Your task to perform on an android device: Search for amazon basics triple a on ebay.com, select the first entry, add it to the cart, then select checkout. Image 0: 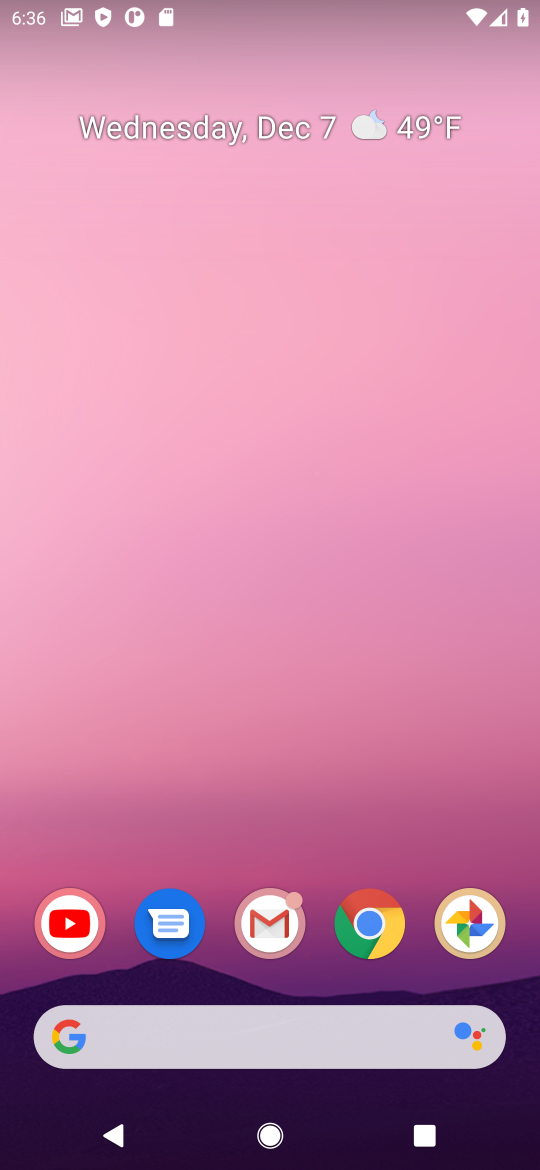
Step 0: drag from (253, 825) to (232, 238)
Your task to perform on an android device: Search for amazon basics triple a on ebay.com, select the first entry, add it to the cart, then select checkout. Image 1: 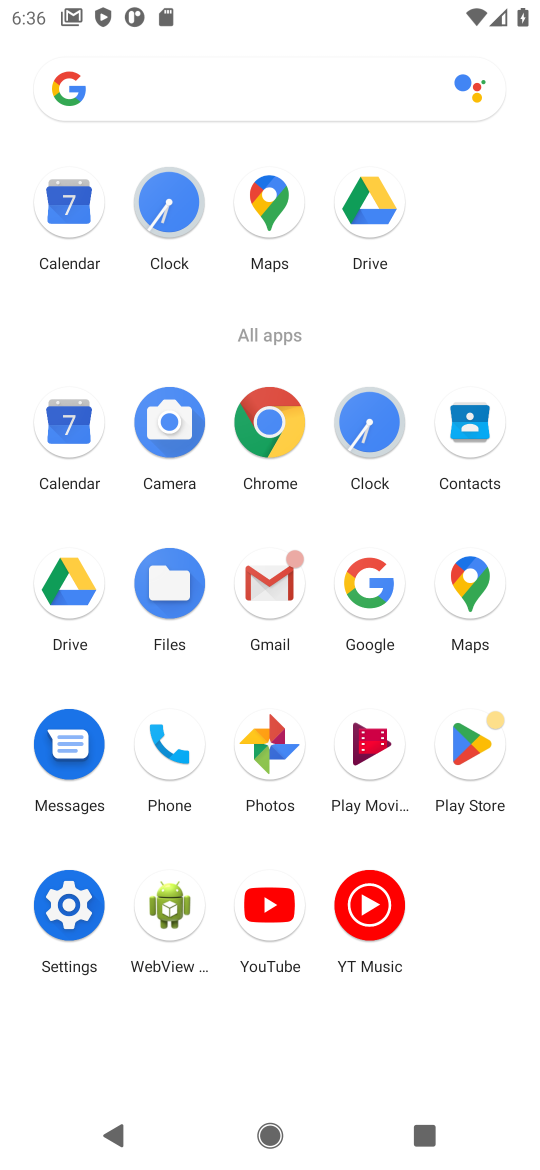
Step 1: click (363, 589)
Your task to perform on an android device: Search for amazon basics triple a on ebay.com, select the first entry, add it to the cart, then select checkout. Image 2: 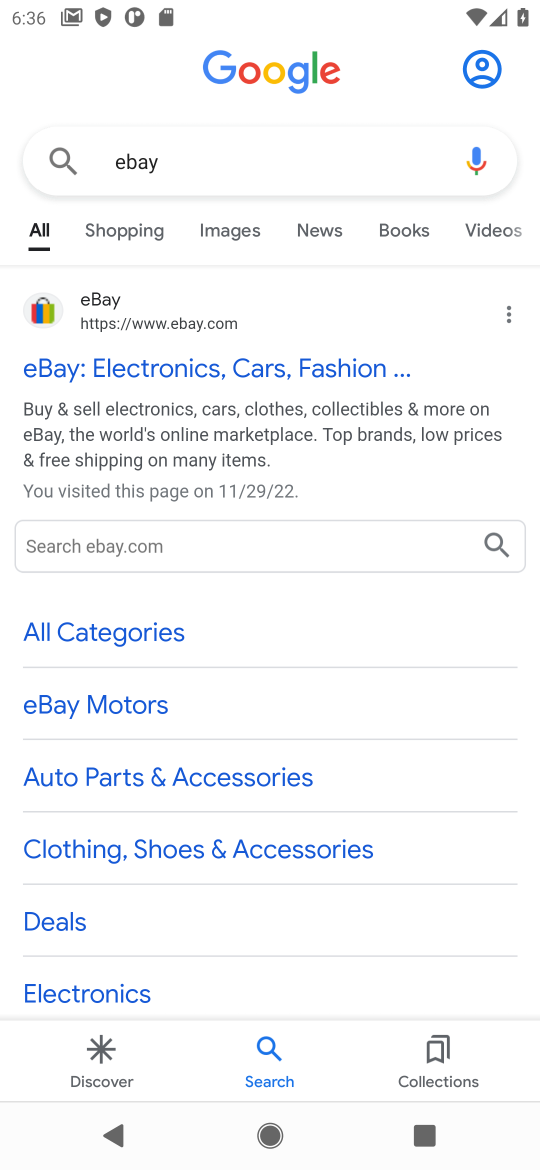
Step 2: click (137, 176)
Your task to perform on an android device: Search for amazon basics triple a on ebay.com, select the first entry, add it to the cart, then select checkout. Image 3: 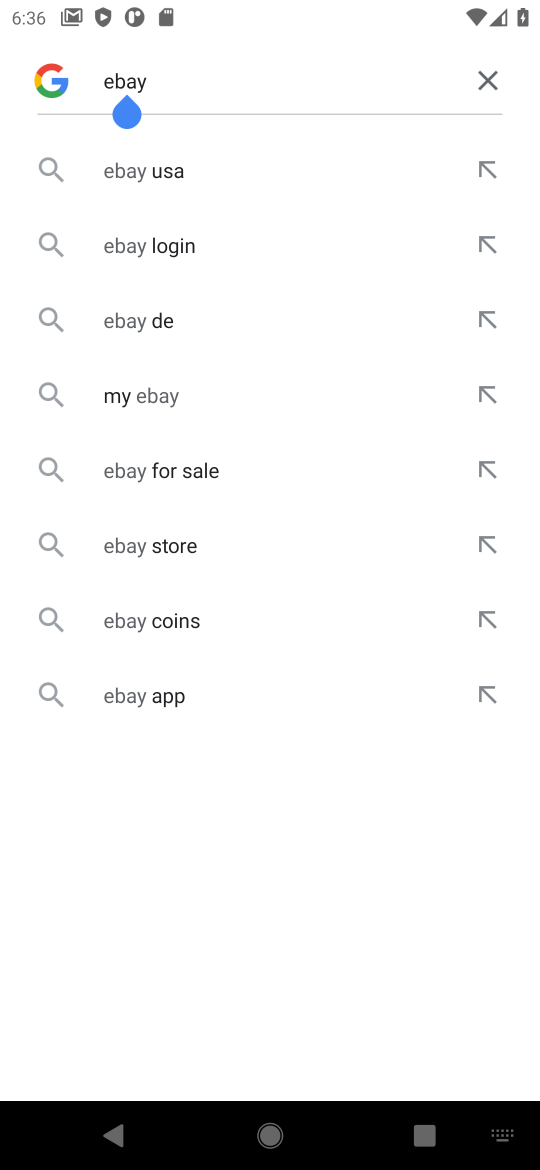
Step 3: click (478, 86)
Your task to perform on an android device: Search for amazon basics triple a on ebay.com, select the first entry, add it to the cart, then select checkout. Image 4: 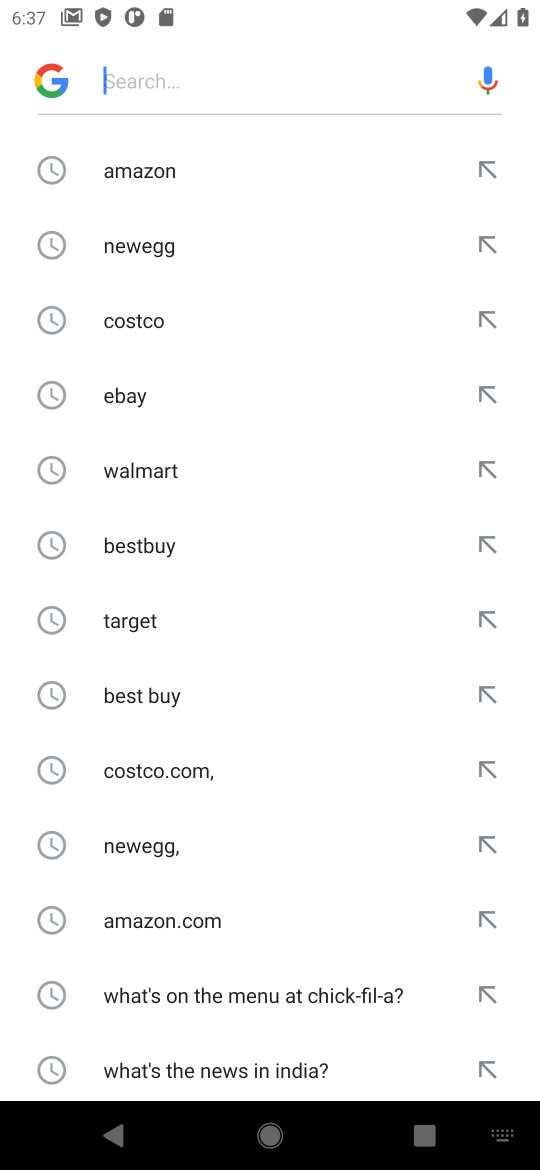
Step 4: click (136, 403)
Your task to perform on an android device: Search for amazon basics triple a on ebay.com, select the first entry, add it to the cart, then select checkout. Image 5: 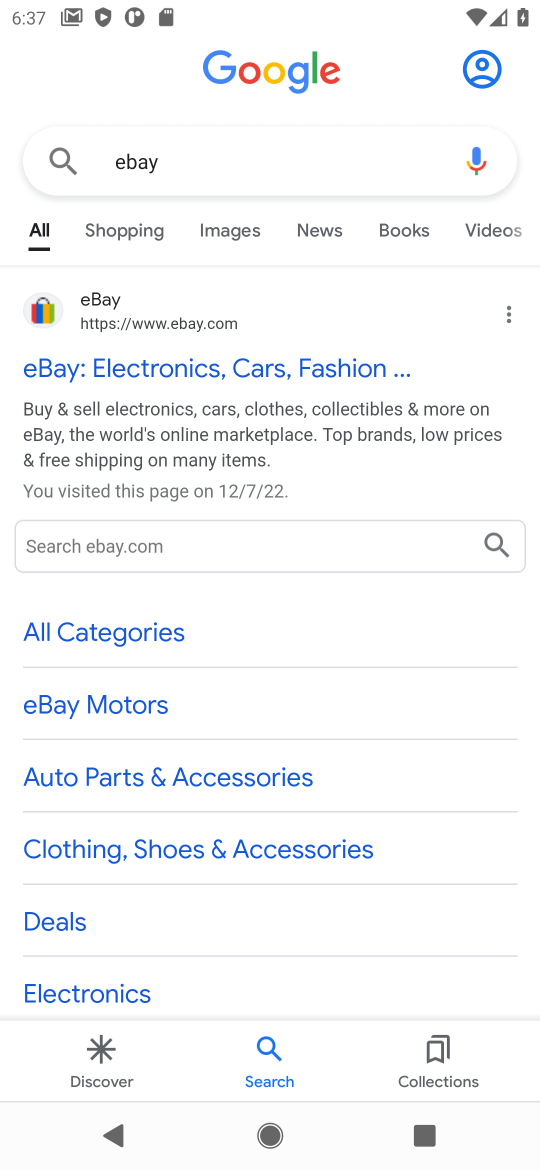
Step 5: click (143, 385)
Your task to perform on an android device: Search for amazon basics triple a on ebay.com, select the first entry, add it to the cart, then select checkout. Image 6: 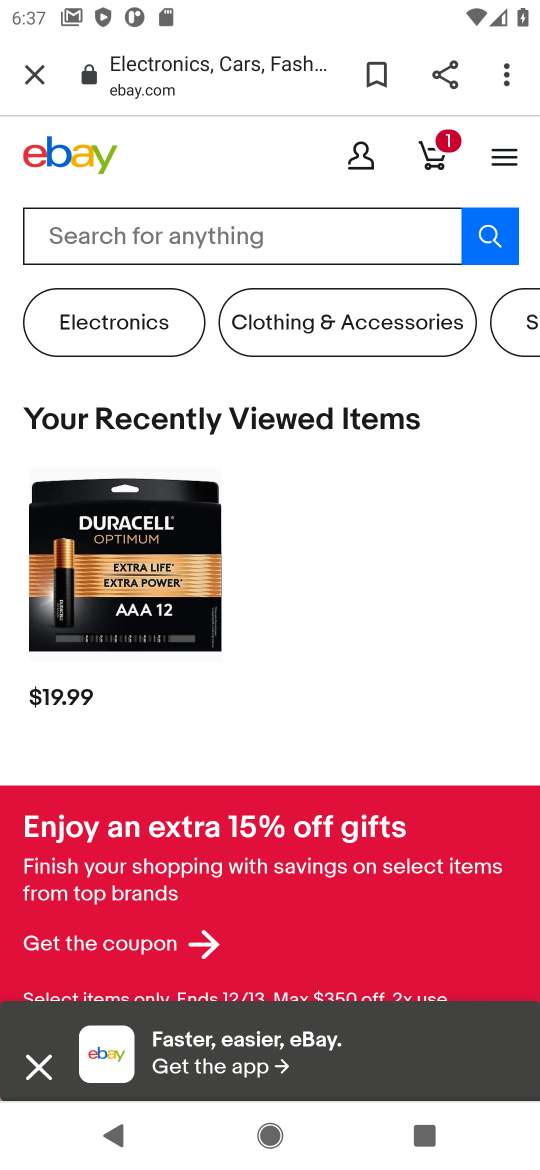
Step 6: click (171, 243)
Your task to perform on an android device: Search for amazon basics triple a on ebay.com, select the first entry, add it to the cart, then select checkout. Image 7: 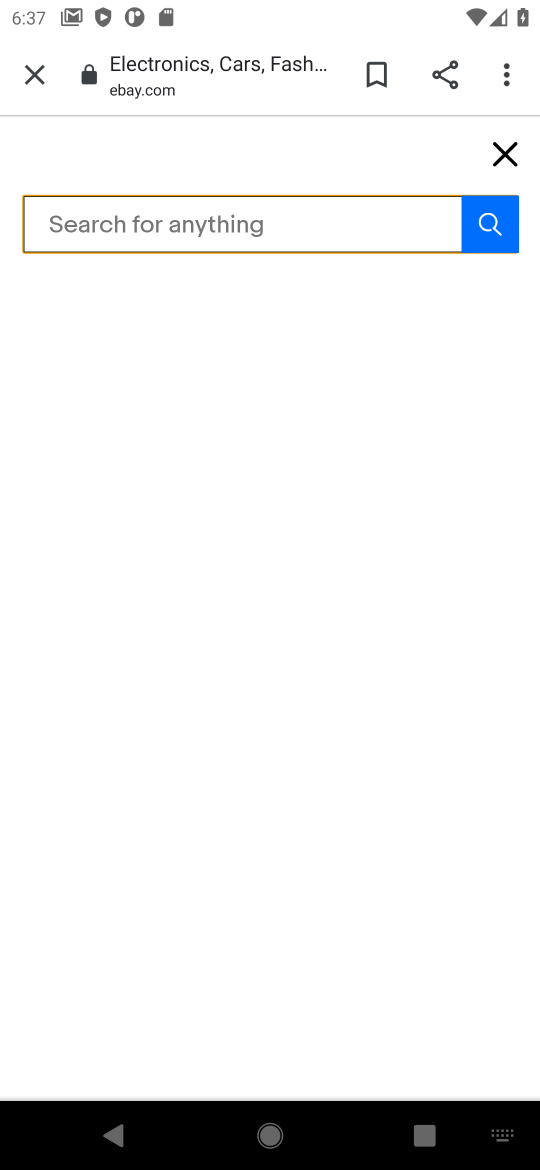
Step 7: type "amazon basics triple a "
Your task to perform on an android device: Search for amazon basics triple a on ebay.com, select the first entry, add it to the cart, then select checkout. Image 8: 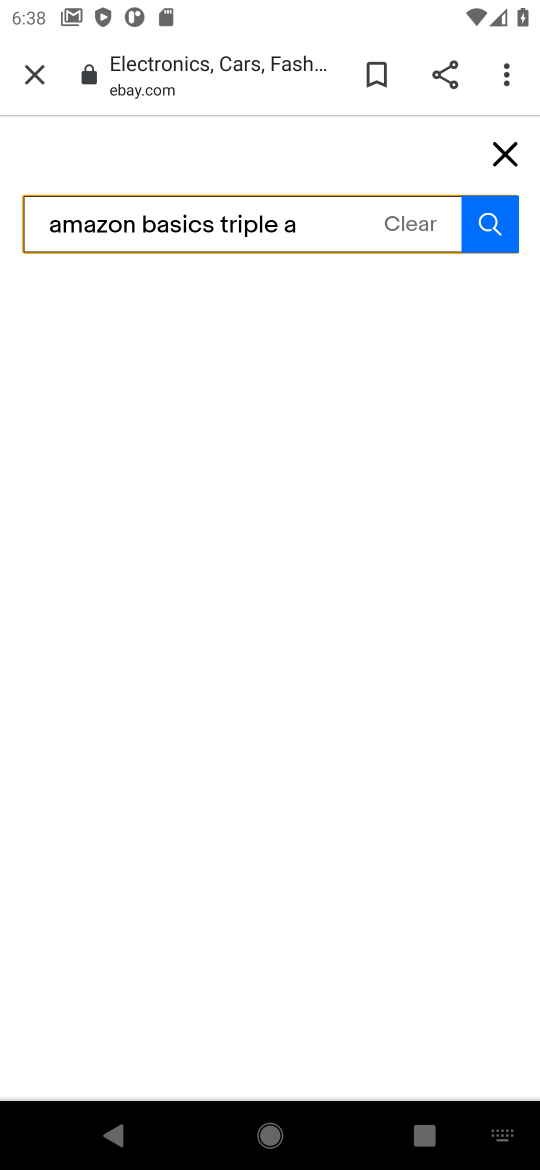
Step 8: click (476, 222)
Your task to perform on an android device: Search for amazon basics triple a on ebay.com, select the first entry, add it to the cart, then select checkout. Image 9: 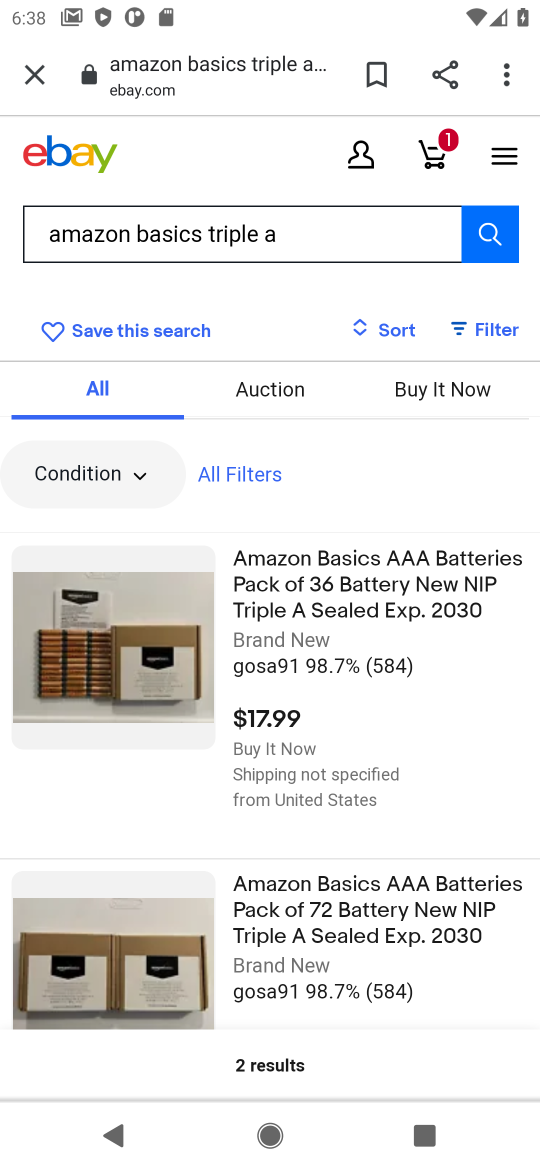
Step 9: click (352, 623)
Your task to perform on an android device: Search for amazon basics triple a on ebay.com, select the first entry, add it to the cart, then select checkout. Image 10: 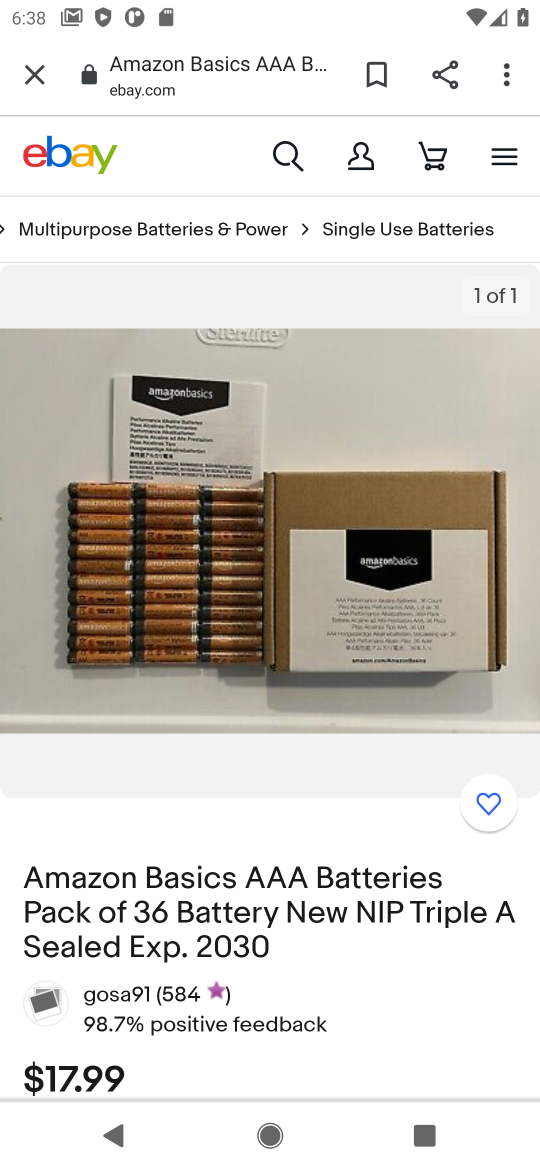
Step 10: drag from (278, 1028) to (261, 509)
Your task to perform on an android device: Search for amazon basics triple a on ebay.com, select the first entry, add it to the cart, then select checkout. Image 11: 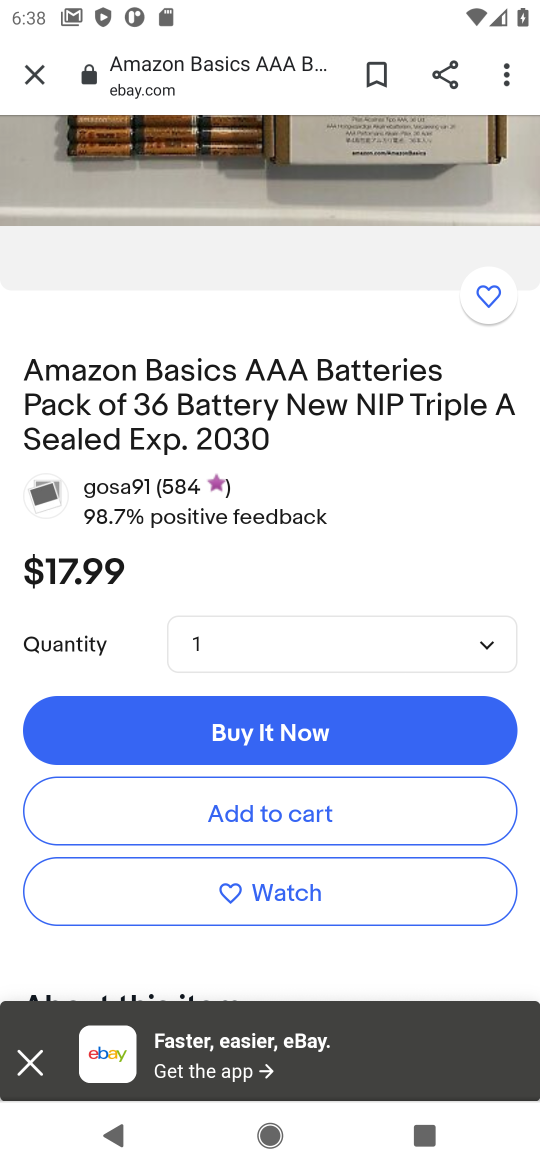
Step 11: click (283, 820)
Your task to perform on an android device: Search for amazon basics triple a on ebay.com, select the first entry, add it to the cart, then select checkout. Image 12: 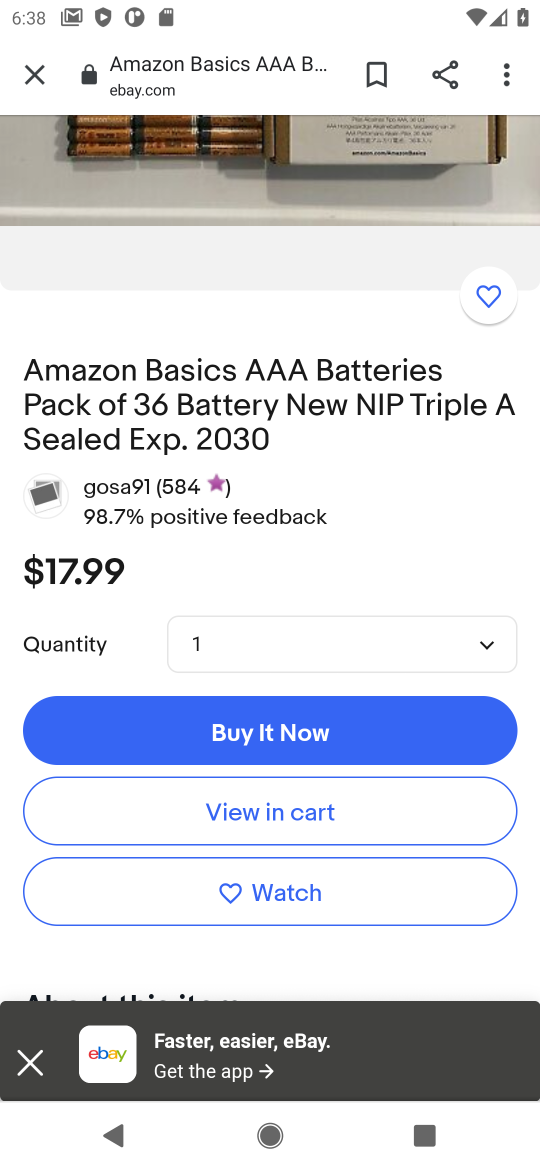
Step 12: task complete